Your task to perform on an android device: Go to eBay Image 0: 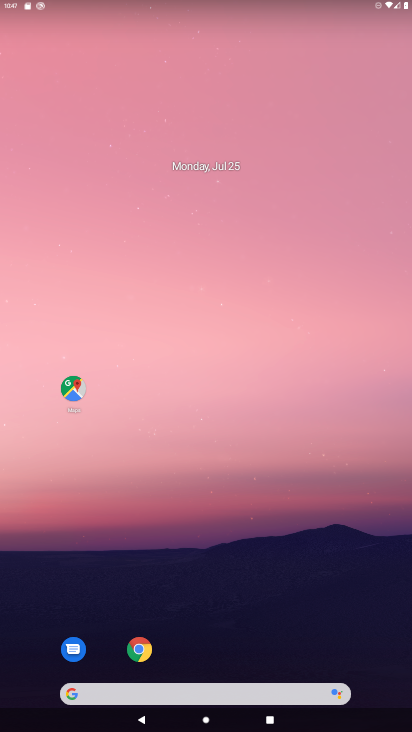
Step 0: drag from (315, 375) to (302, 152)
Your task to perform on an android device: Go to eBay Image 1: 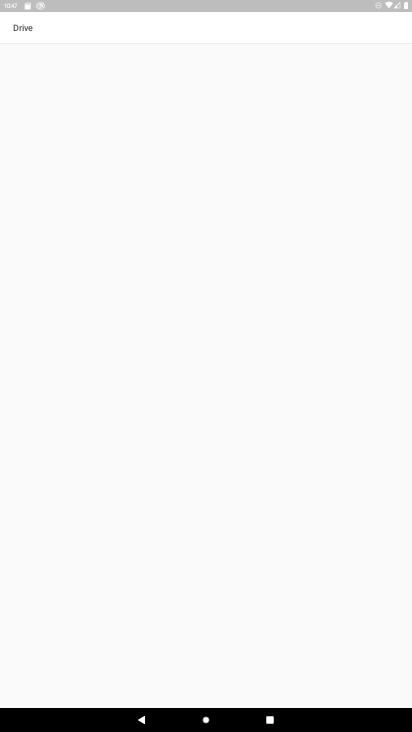
Step 1: press home button
Your task to perform on an android device: Go to eBay Image 2: 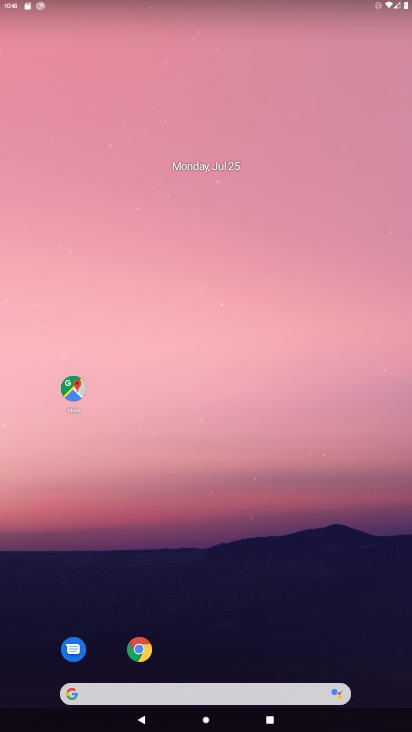
Step 2: click (139, 651)
Your task to perform on an android device: Go to eBay Image 3: 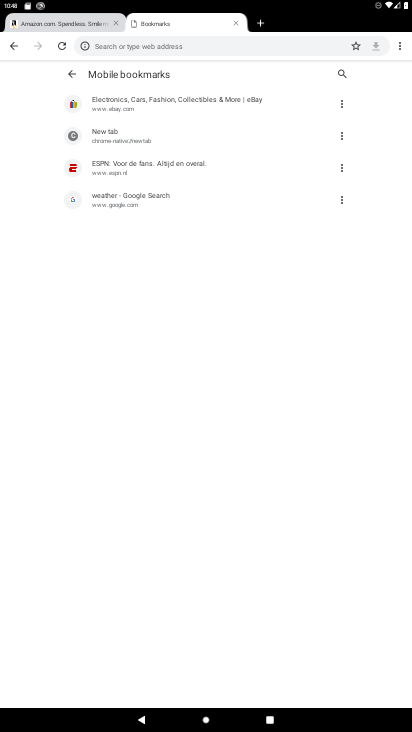
Step 3: click (117, 45)
Your task to perform on an android device: Go to eBay Image 4: 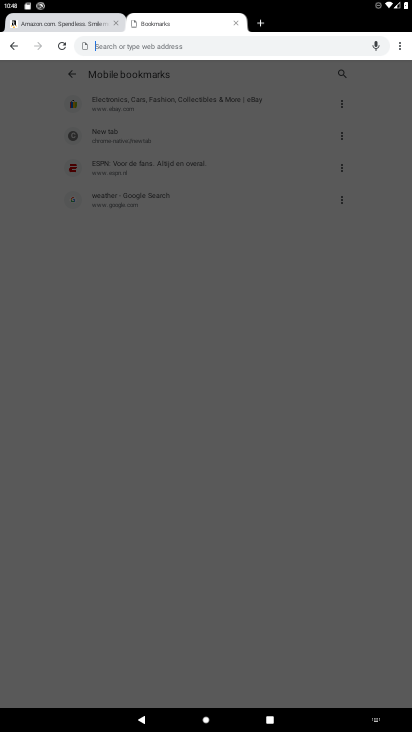
Step 4: type "eBay"
Your task to perform on an android device: Go to eBay Image 5: 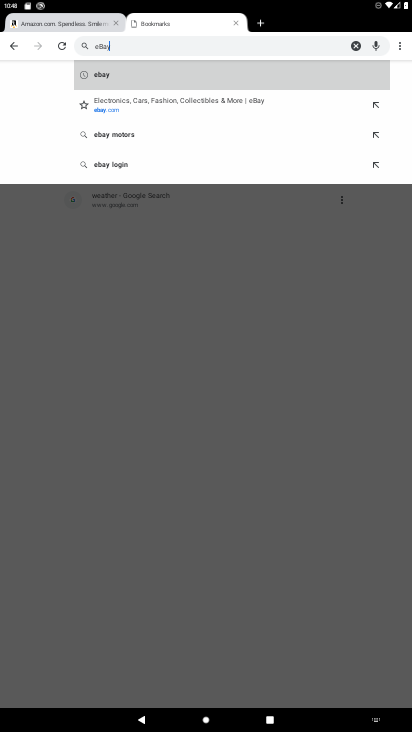
Step 5: click (99, 71)
Your task to perform on an android device: Go to eBay Image 6: 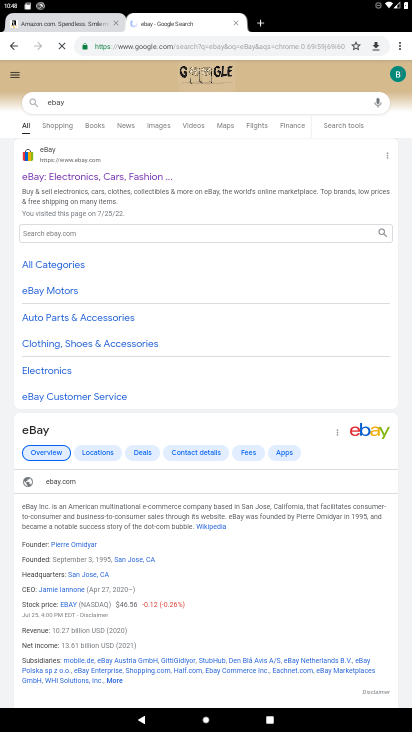
Step 6: click (48, 154)
Your task to perform on an android device: Go to eBay Image 7: 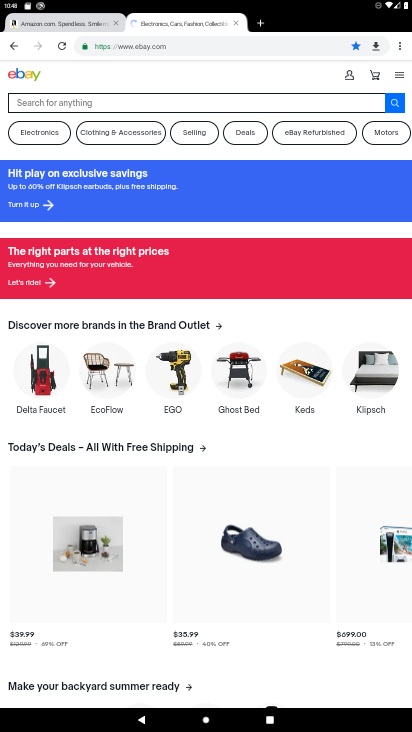
Step 7: task complete